Your task to perform on an android device: set an alarm Image 0: 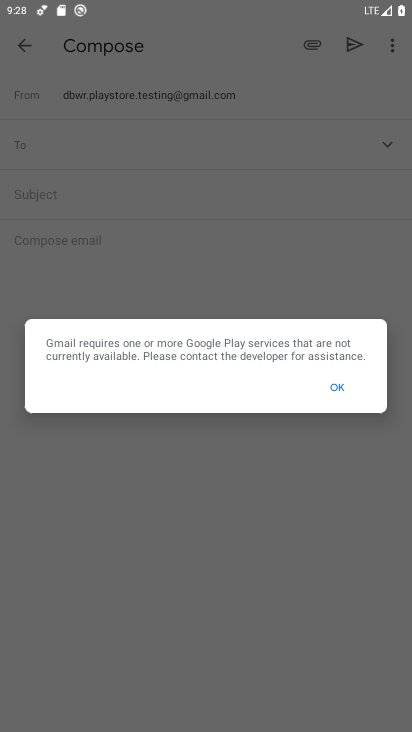
Step 0: press home button
Your task to perform on an android device: set an alarm Image 1: 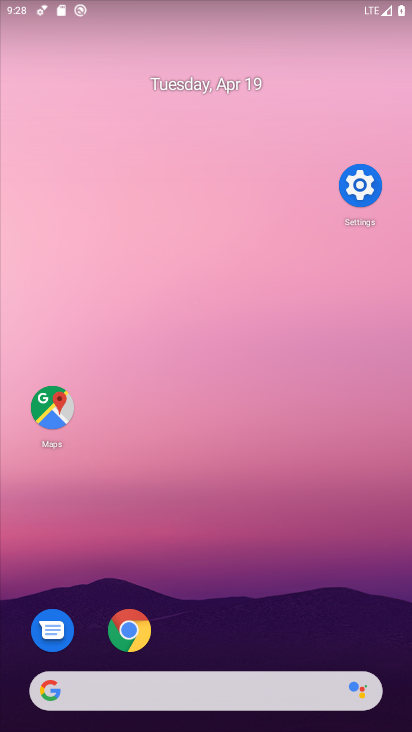
Step 1: drag from (236, 591) to (307, 196)
Your task to perform on an android device: set an alarm Image 2: 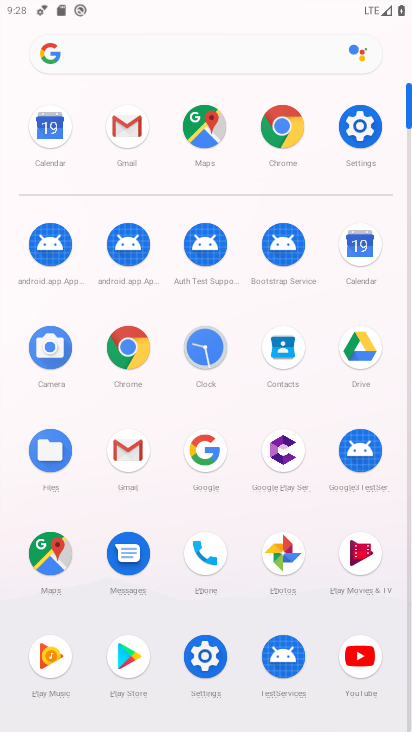
Step 2: click (209, 361)
Your task to perform on an android device: set an alarm Image 3: 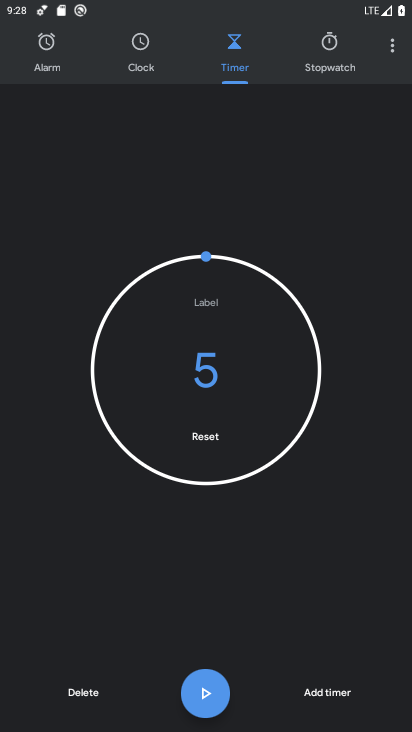
Step 3: click (68, 75)
Your task to perform on an android device: set an alarm Image 4: 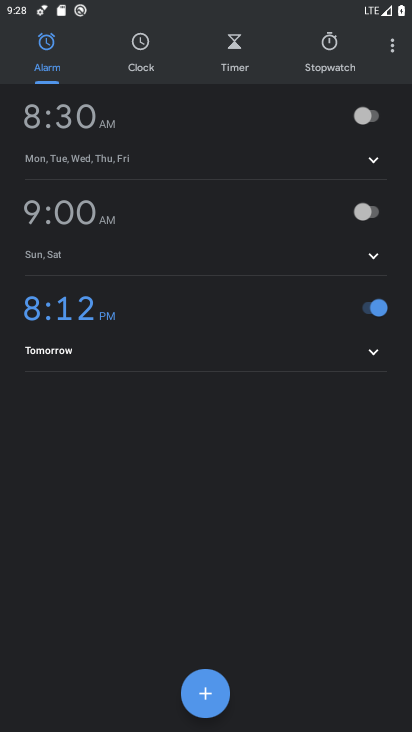
Step 4: click (205, 698)
Your task to perform on an android device: set an alarm Image 5: 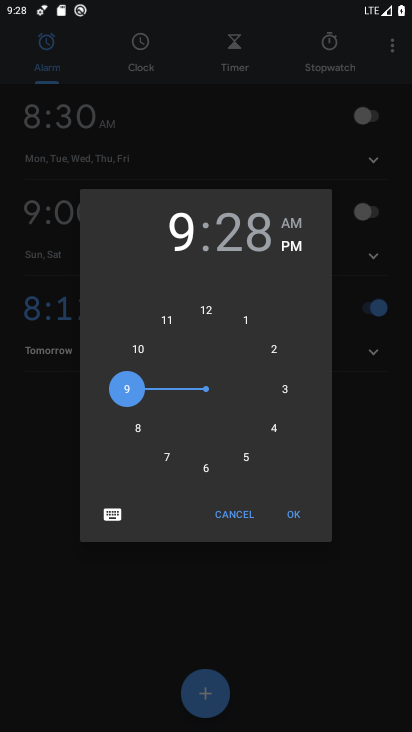
Step 5: click (246, 326)
Your task to perform on an android device: set an alarm Image 6: 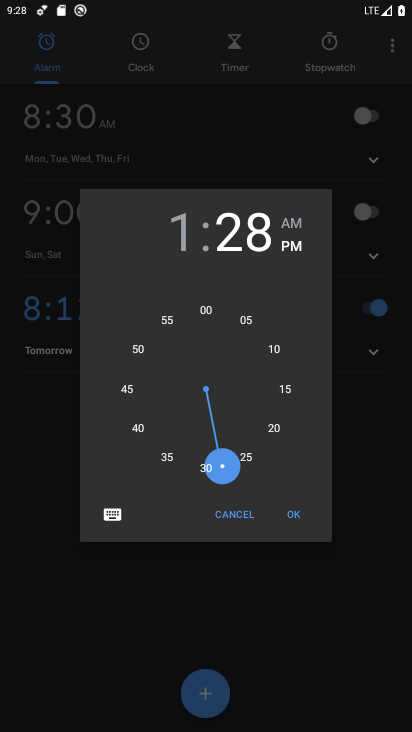
Step 6: click (248, 327)
Your task to perform on an android device: set an alarm Image 7: 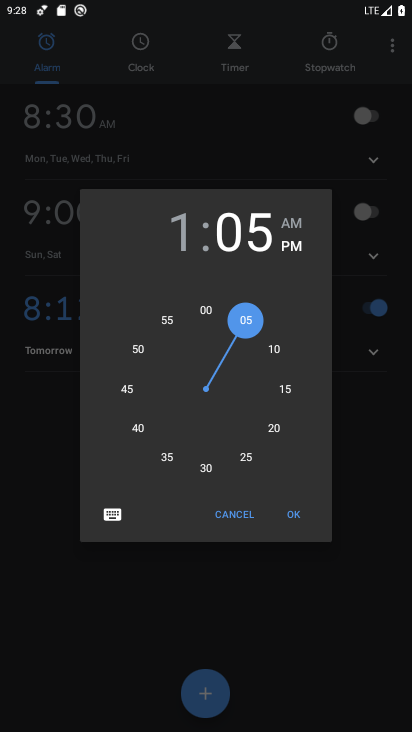
Step 7: click (304, 517)
Your task to perform on an android device: set an alarm Image 8: 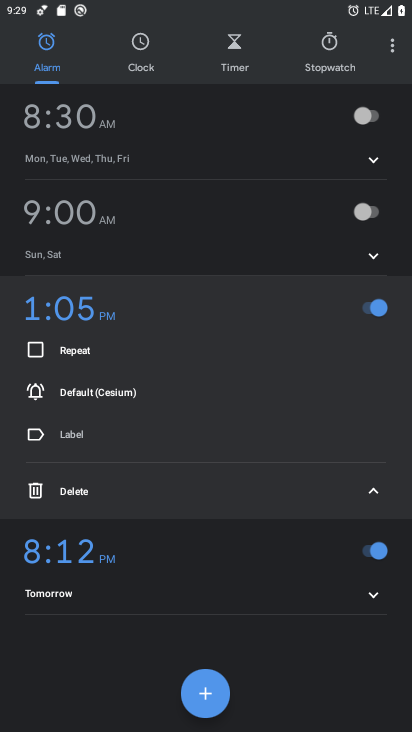
Step 8: task complete